Your task to perform on an android device: Go to eBay Image 0: 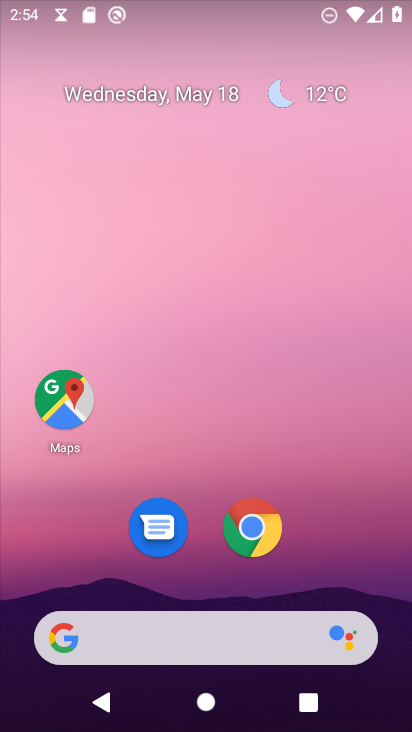
Step 0: click (260, 531)
Your task to perform on an android device: Go to eBay Image 1: 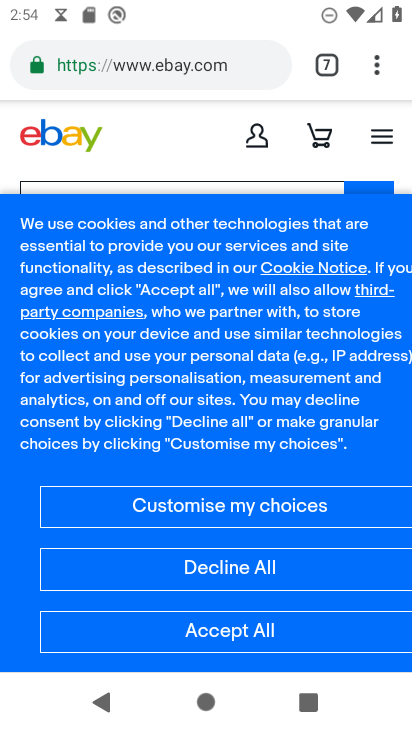
Step 1: task complete